Your task to perform on an android device: Open privacy settings Image 0: 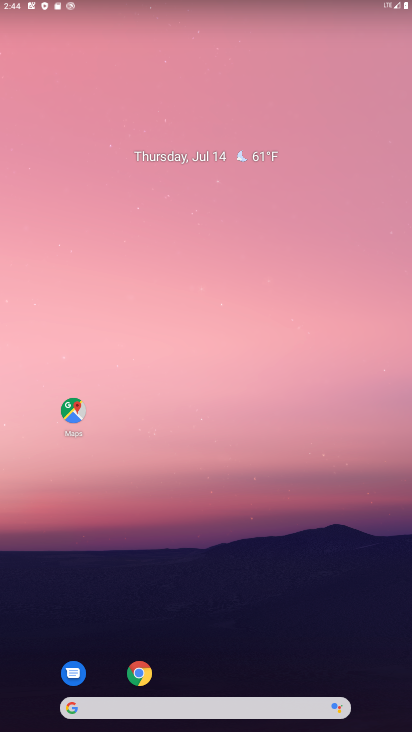
Step 0: drag from (260, 366) to (246, 64)
Your task to perform on an android device: Open privacy settings Image 1: 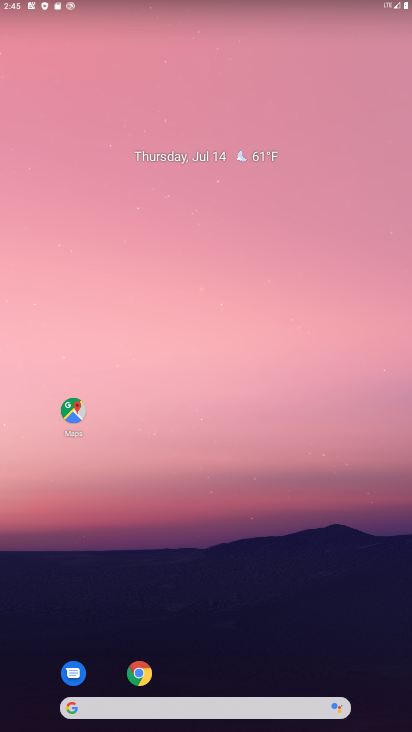
Step 1: drag from (194, 661) to (218, 112)
Your task to perform on an android device: Open privacy settings Image 2: 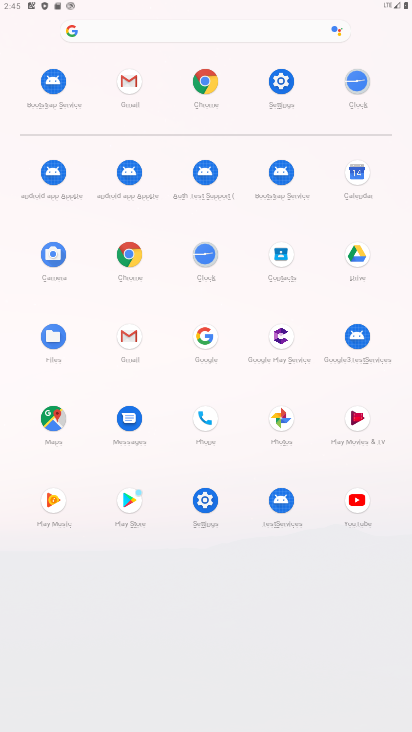
Step 2: click (279, 99)
Your task to perform on an android device: Open privacy settings Image 3: 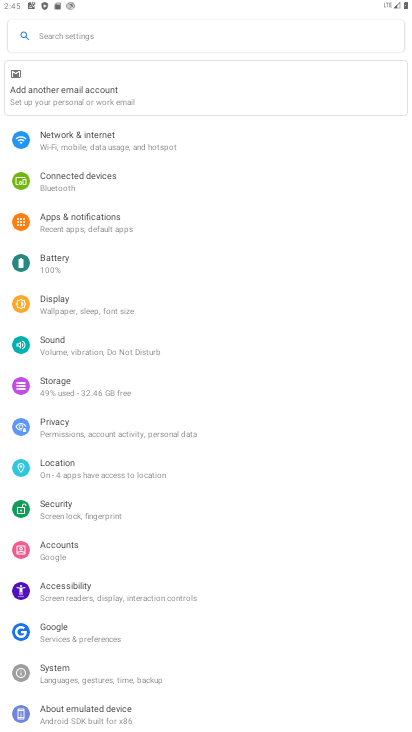
Step 3: click (43, 415)
Your task to perform on an android device: Open privacy settings Image 4: 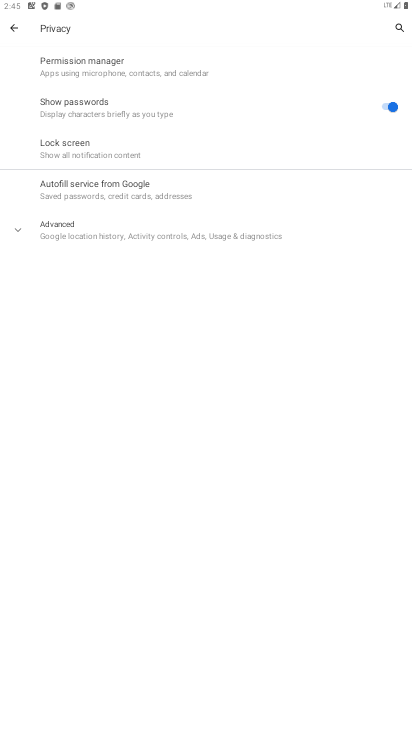
Step 4: task complete